Your task to perform on an android device: delete the emails in spam in the gmail app Image 0: 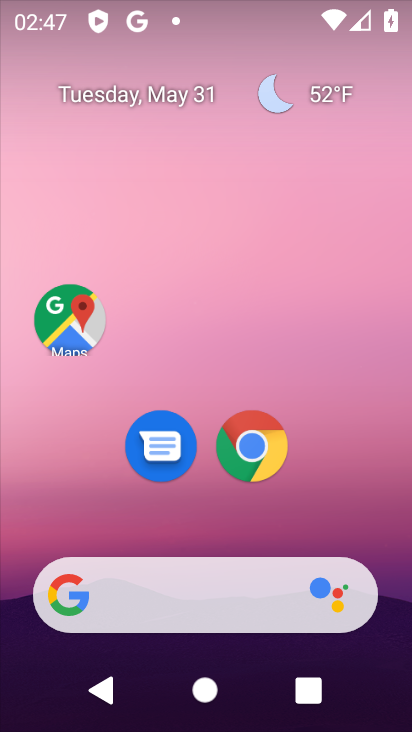
Step 0: drag from (333, 477) to (255, 39)
Your task to perform on an android device: delete the emails in spam in the gmail app Image 1: 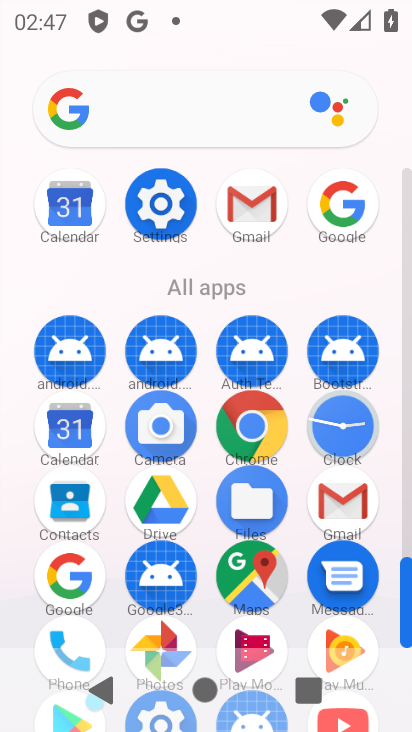
Step 1: click (254, 205)
Your task to perform on an android device: delete the emails in spam in the gmail app Image 2: 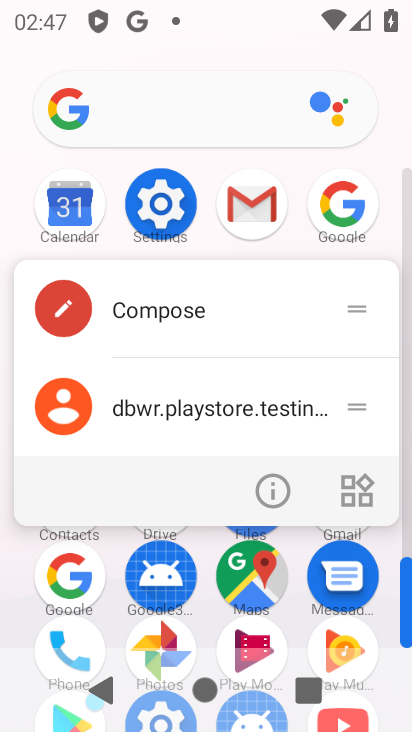
Step 2: click (254, 205)
Your task to perform on an android device: delete the emails in spam in the gmail app Image 3: 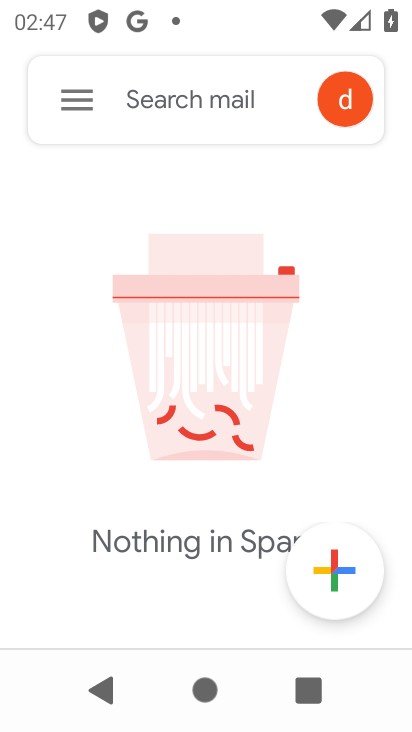
Step 3: click (82, 102)
Your task to perform on an android device: delete the emails in spam in the gmail app Image 4: 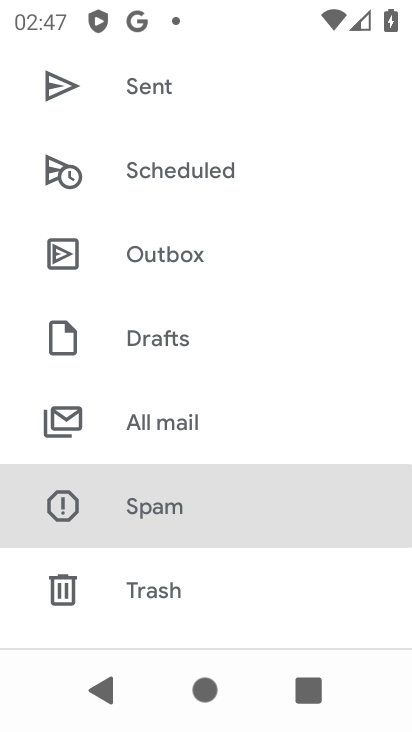
Step 4: click (264, 534)
Your task to perform on an android device: delete the emails in spam in the gmail app Image 5: 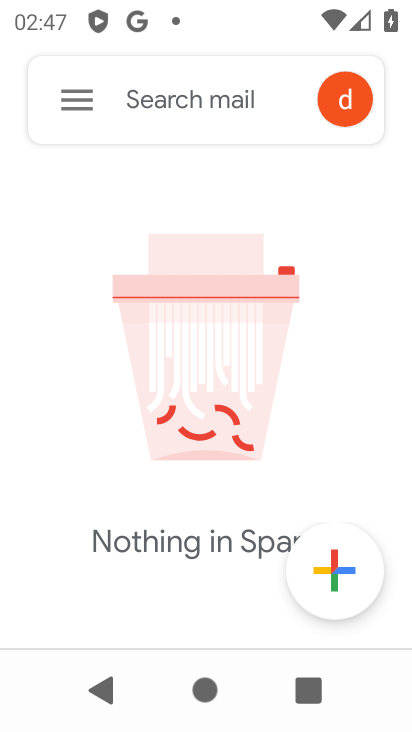
Step 5: task complete